Your task to perform on an android device: turn off data saver in the chrome app Image 0: 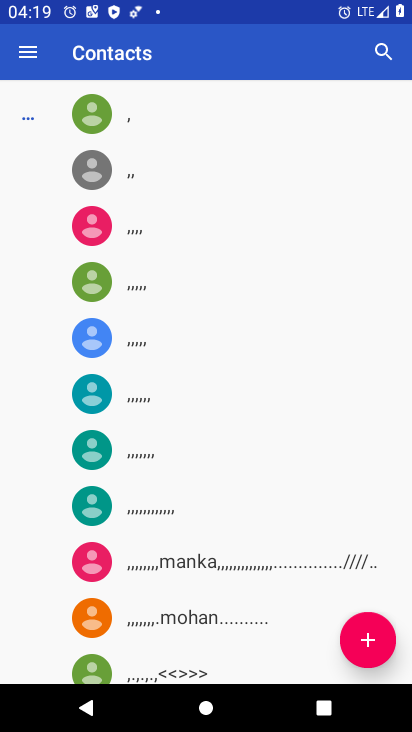
Step 0: press home button
Your task to perform on an android device: turn off data saver in the chrome app Image 1: 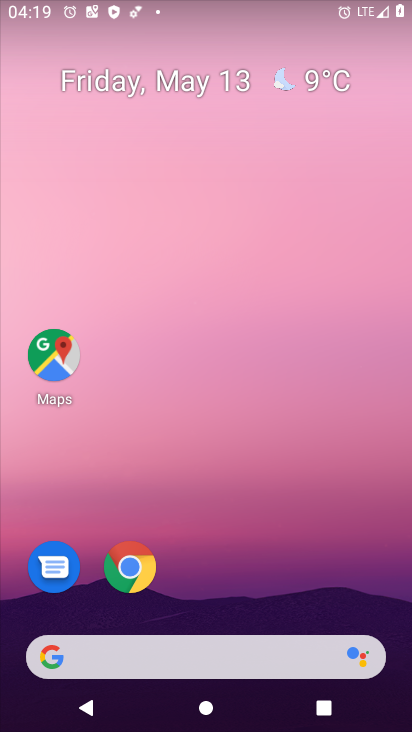
Step 1: click (135, 577)
Your task to perform on an android device: turn off data saver in the chrome app Image 2: 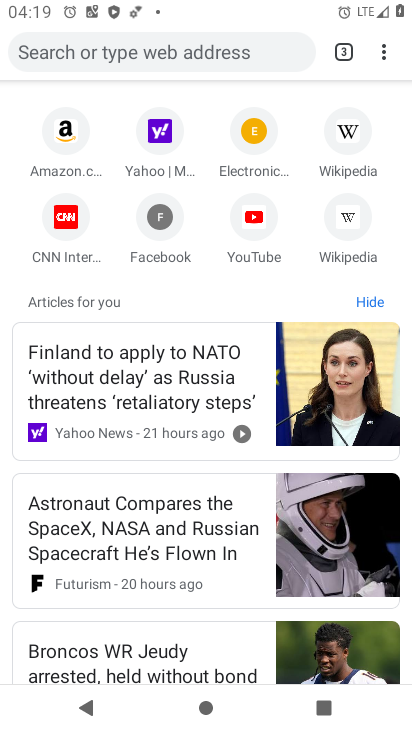
Step 2: click (383, 54)
Your task to perform on an android device: turn off data saver in the chrome app Image 3: 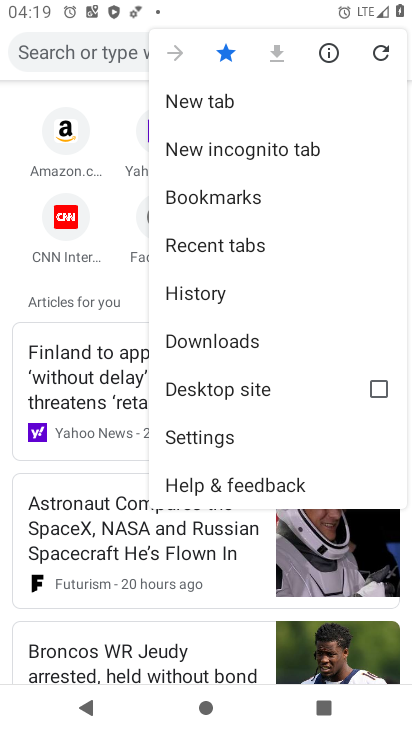
Step 3: click (196, 434)
Your task to perform on an android device: turn off data saver in the chrome app Image 4: 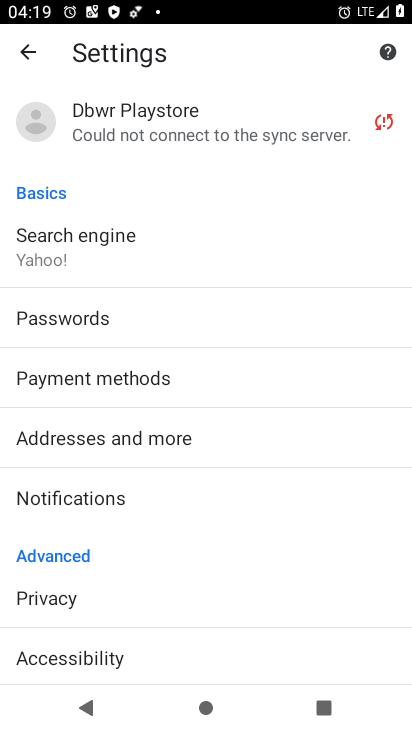
Step 4: drag from (170, 552) to (171, 167)
Your task to perform on an android device: turn off data saver in the chrome app Image 5: 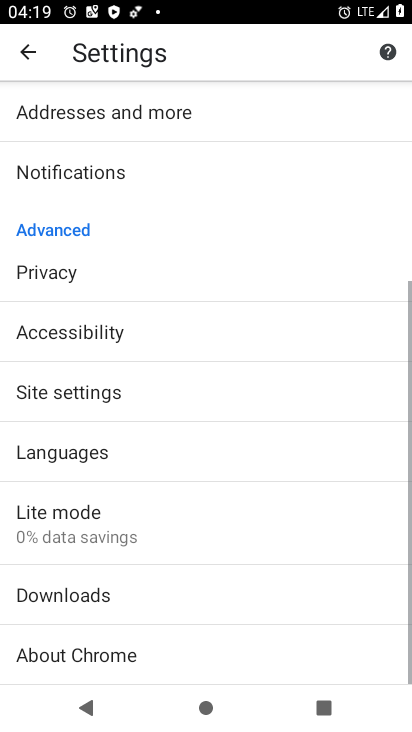
Step 5: click (79, 524)
Your task to perform on an android device: turn off data saver in the chrome app Image 6: 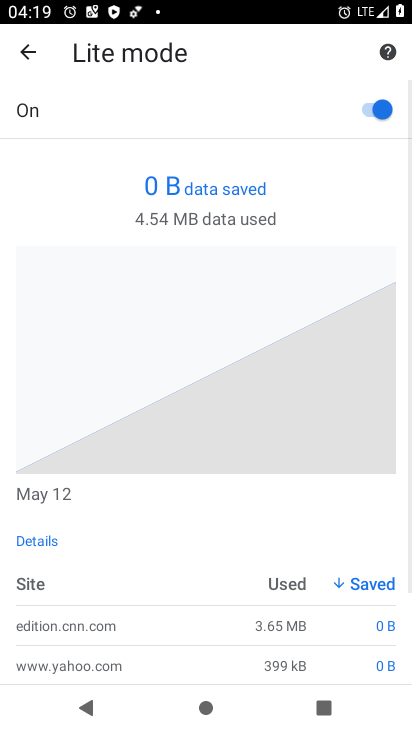
Step 6: click (378, 117)
Your task to perform on an android device: turn off data saver in the chrome app Image 7: 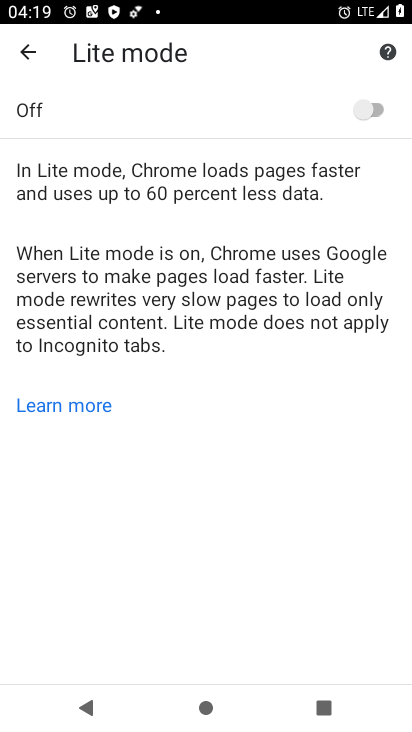
Step 7: task complete